Your task to perform on an android device: allow cookies in the chrome app Image 0: 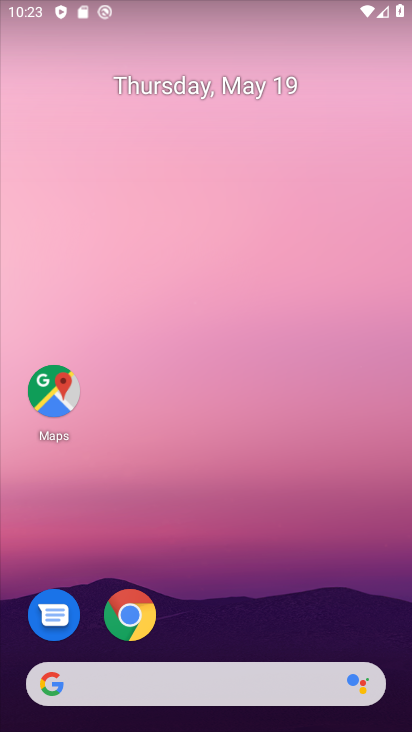
Step 0: click (117, 624)
Your task to perform on an android device: allow cookies in the chrome app Image 1: 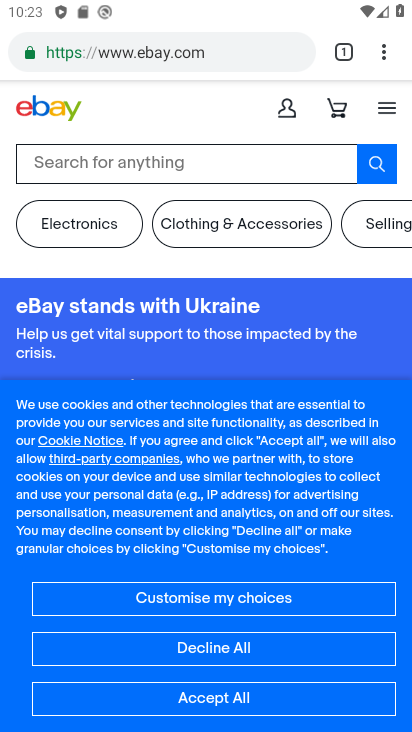
Step 1: click (382, 51)
Your task to perform on an android device: allow cookies in the chrome app Image 2: 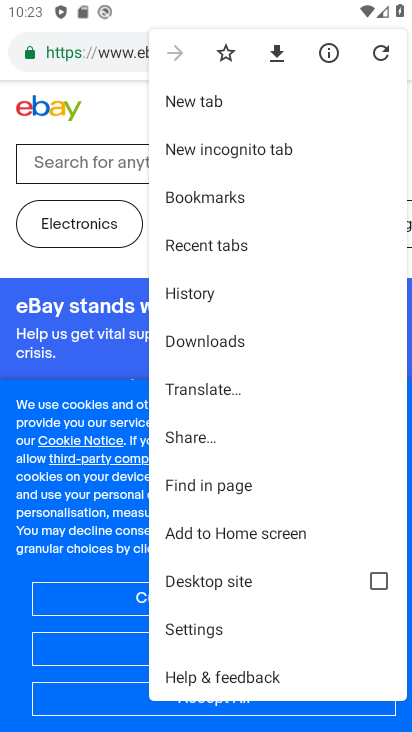
Step 2: click (211, 626)
Your task to perform on an android device: allow cookies in the chrome app Image 3: 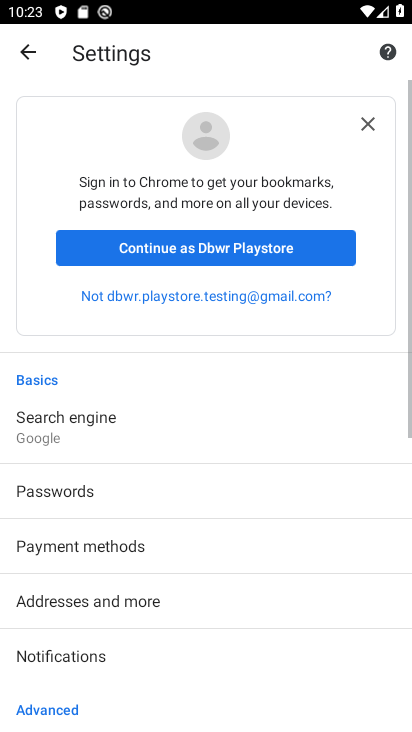
Step 3: drag from (190, 596) to (187, 142)
Your task to perform on an android device: allow cookies in the chrome app Image 4: 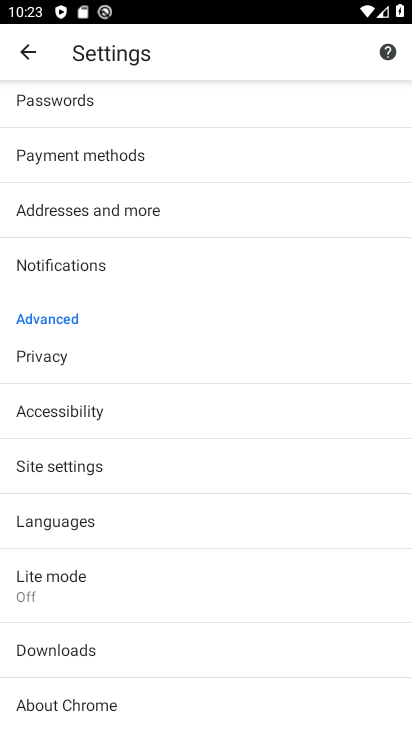
Step 4: click (61, 464)
Your task to perform on an android device: allow cookies in the chrome app Image 5: 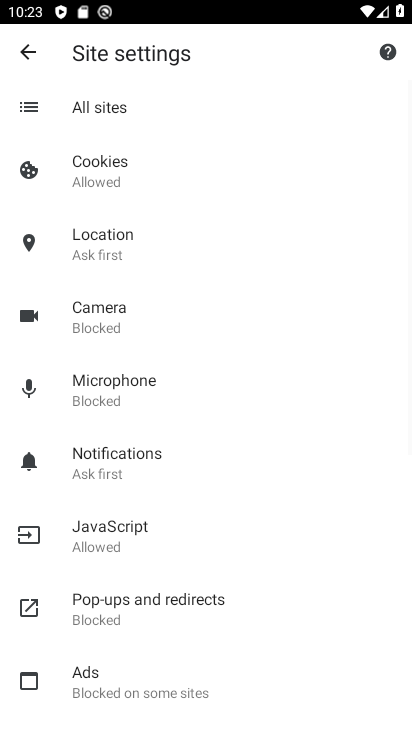
Step 5: click (93, 182)
Your task to perform on an android device: allow cookies in the chrome app Image 6: 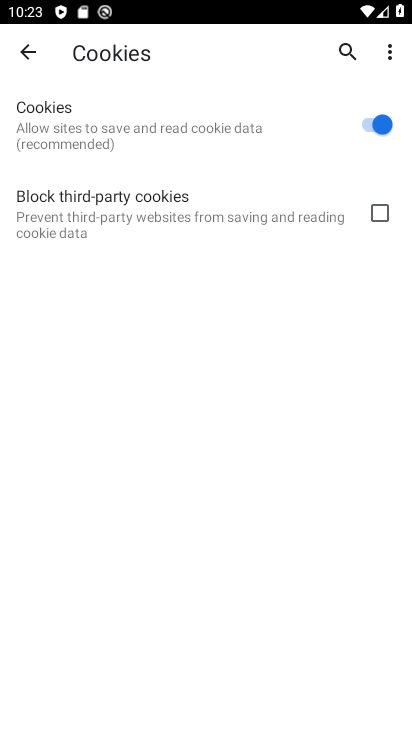
Step 6: task complete